Your task to perform on an android device: Is it going to rain today? Image 0: 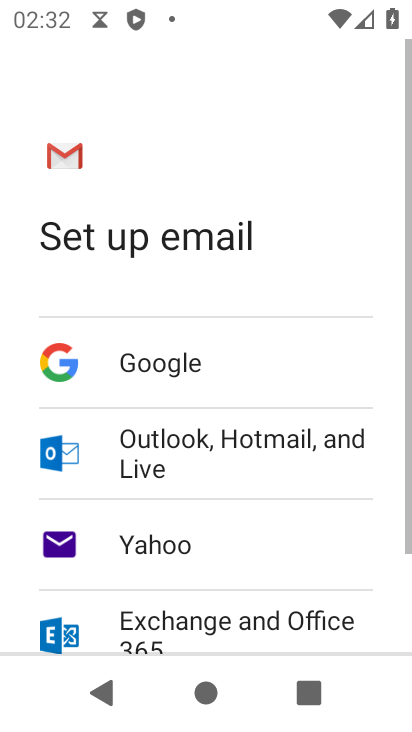
Step 0: press home button
Your task to perform on an android device: Is it going to rain today? Image 1: 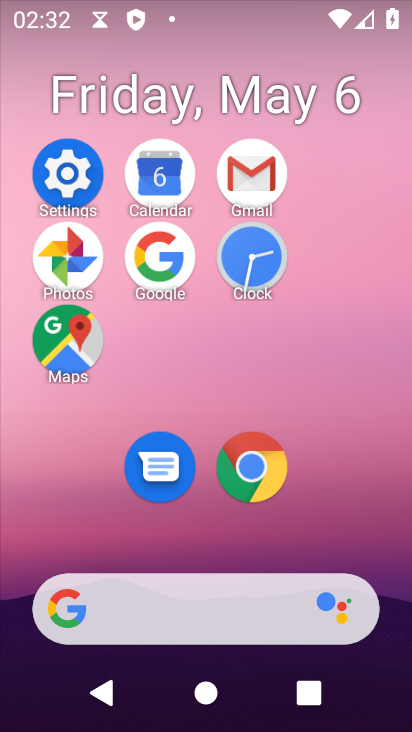
Step 1: click (174, 253)
Your task to perform on an android device: Is it going to rain today? Image 2: 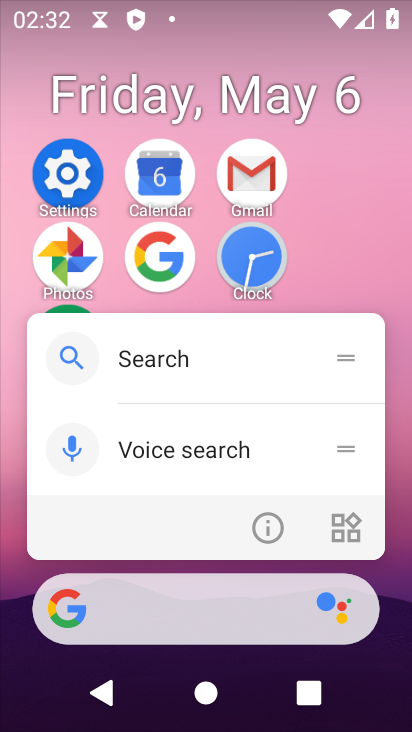
Step 2: click (174, 244)
Your task to perform on an android device: Is it going to rain today? Image 3: 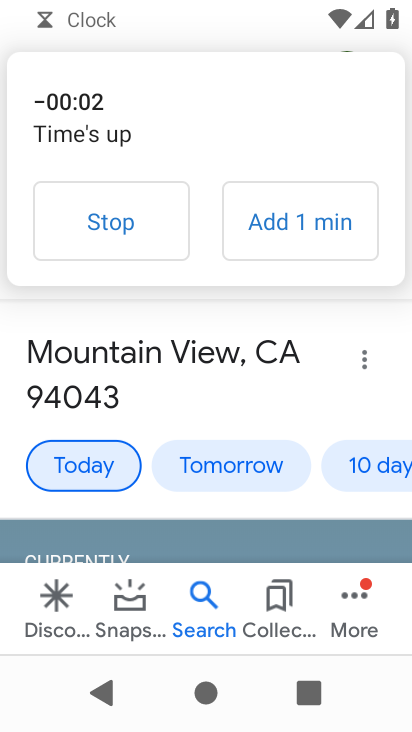
Step 3: click (131, 236)
Your task to perform on an android device: Is it going to rain today? Image 4: 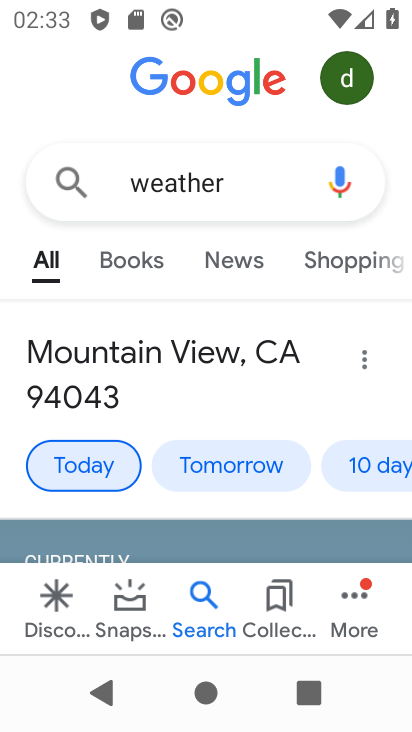
Step 4: task complete